Your task to perform on an android device: Open notification settings Image 0: 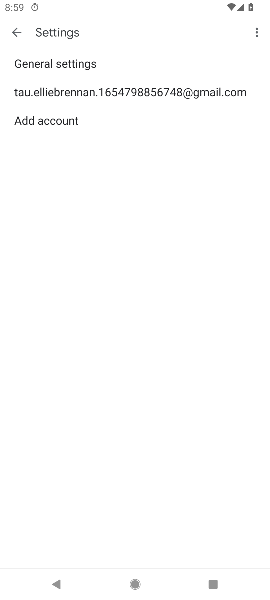
Step 0: press home button
Your task to perform on an android device: Open notification settings Image 1: 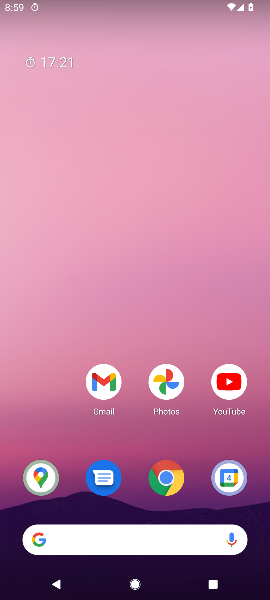
Step 1: drag from (168, 467) to (165, 77)
Your task to perform on an android device: Open notification settings Image 2: 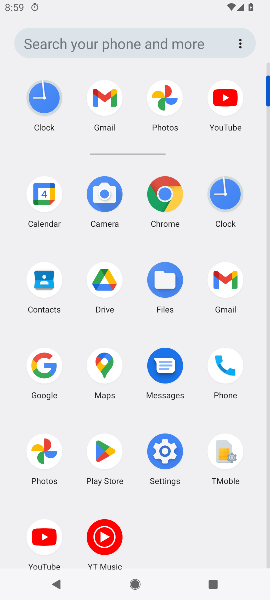
Step 2: click (172, 443)
Your task to perform on an android device: Open notification settings Image 3: 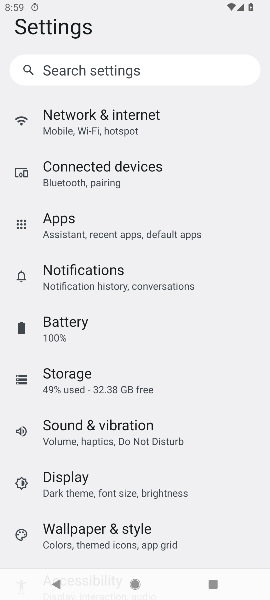
Step 3: click (95, 282)
Your task to perform on an android device: Open notification settings Image 4: 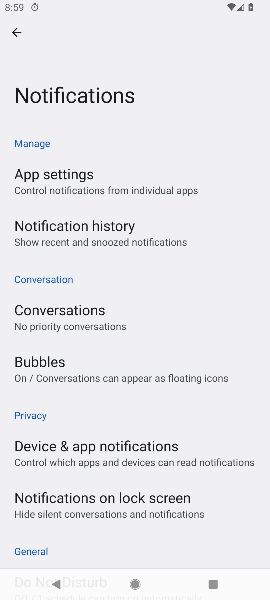
Step 4: task complete